Your task to perform on an android device: Open Google Image 0: 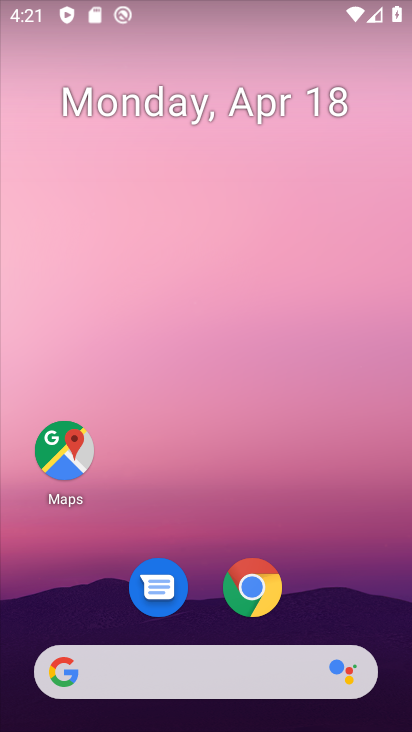
Step 0: click (239, 235)
Your task to perform on an android device: Open Google Image 1: 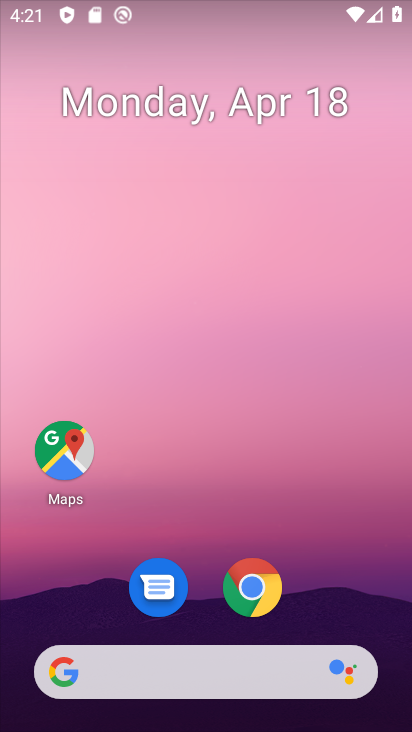
Step 1: drag from (215, 399) to (249, 214)
Your task to perform on an android device: Open Google Image 2: 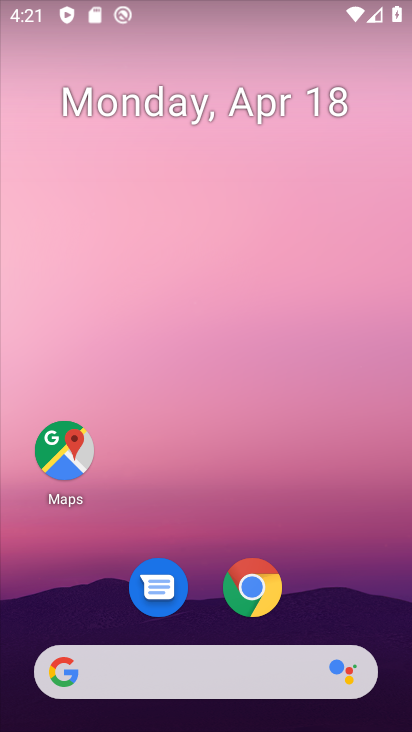
Step 2: drag from (234, 331) to (253, 185)
Your task to perform on an android device: Open Google Image 3: 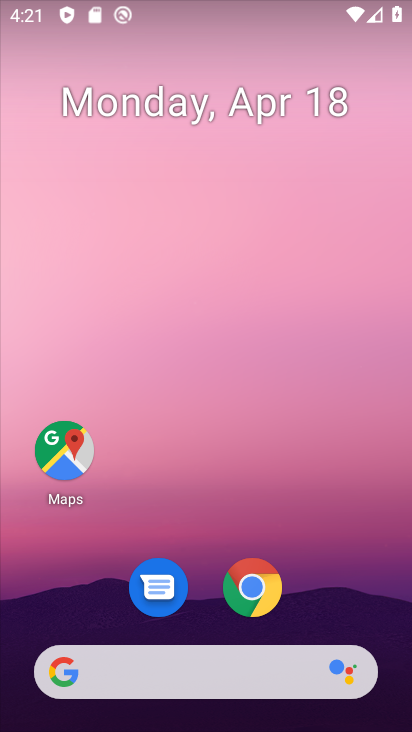
Step 3: drag from (261, 637) to (277, 251)
Your task to perform on an android device: Open Google Image 4: 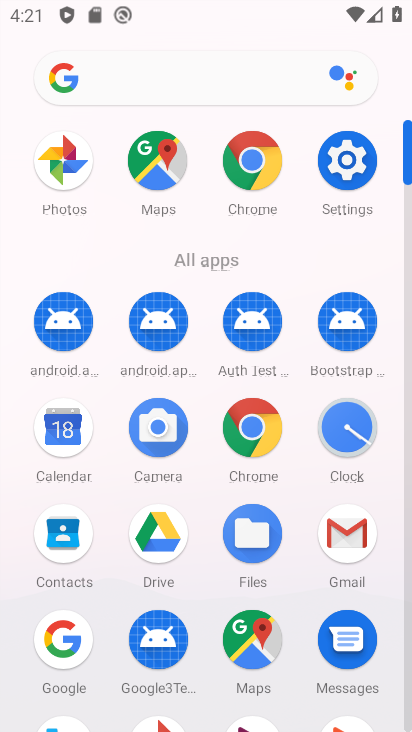
Step 4: drag from (200, 512) to (244, 222)
Your task to perform on an android device: Open Google Image 5: 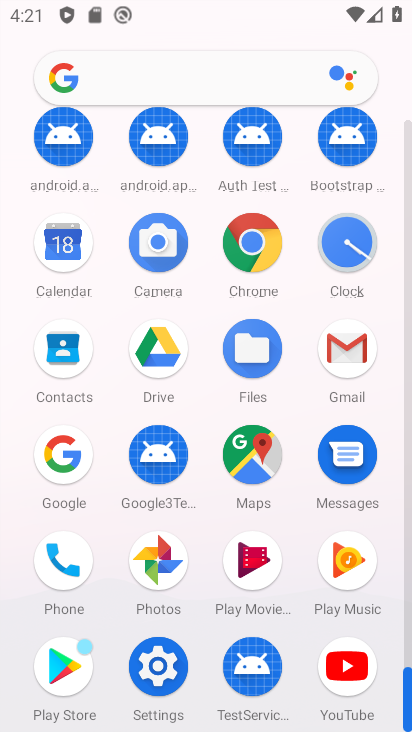
Step 5: click (57, 453)
Your task to perform on an android device: Open Google Image 6: 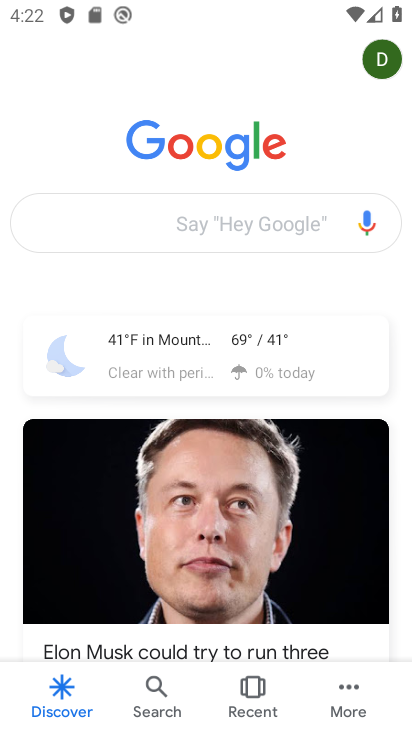
Step 6: task complete